Your task to perform on an android device: What's on my calendar today? Image 0: 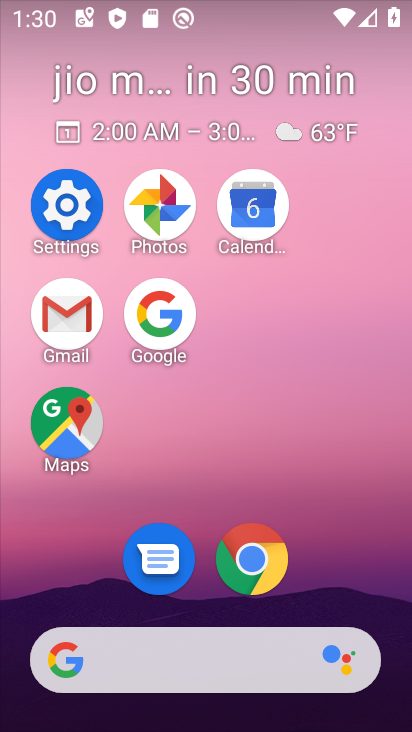
Step 0: click (261, 194)
Your task to perform on an android device: What's on my calendar today? Image 1: 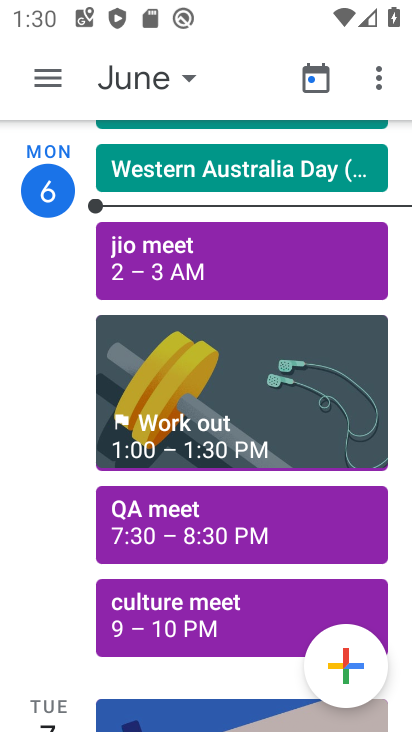
Step 1: task complete